Your task to perform on an android device: delete browsing data in the chrome app Image 0: 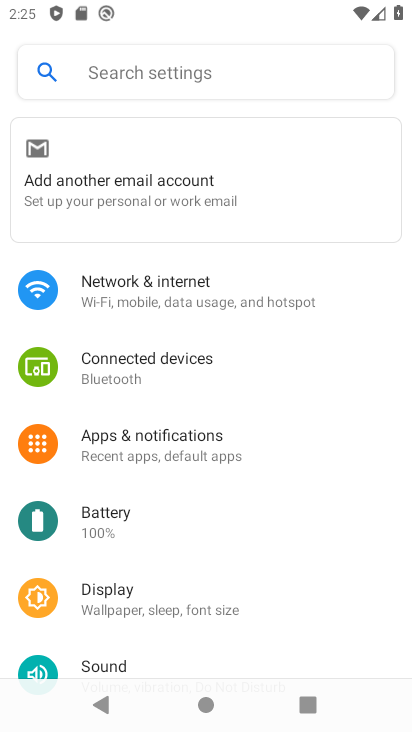
Step 0: drag from (244, 623) to (258, 373)
Your task to perform on an android device: delete browsing data in the chrome app Image 1: 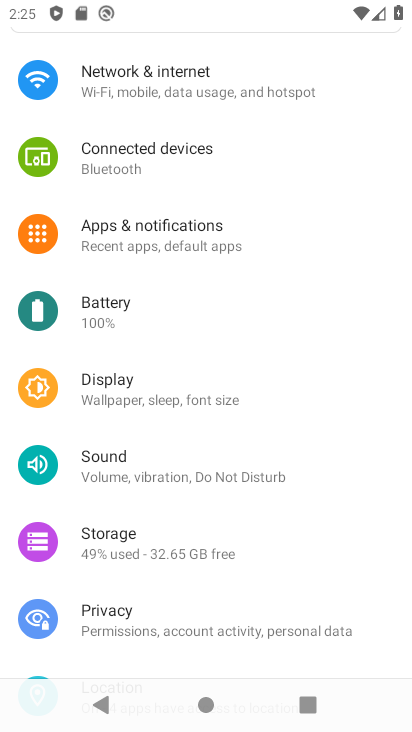
Step 1: drag from (294, 202) to (254, 599)
Your task to perform on an android device: delete browsing data in the chrome app Image 2: 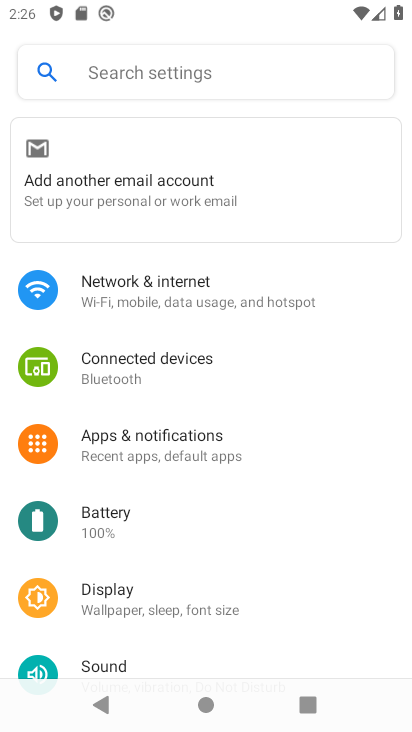
Step 2: press home button
Your task to perform on an android device: delete browsing data in the chrome app Image 3: 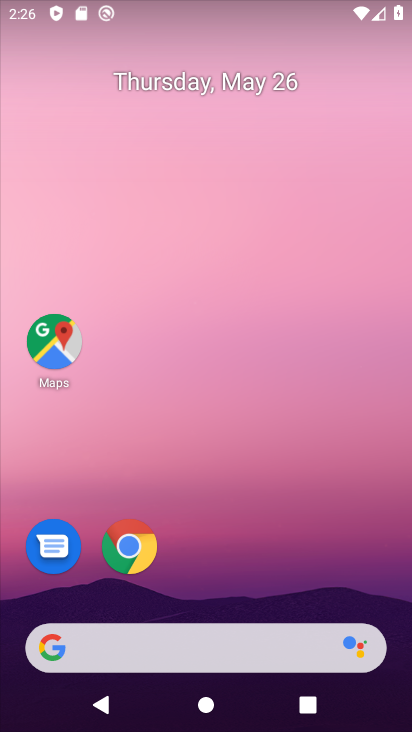
Step 3: click (122, 553)
Your task to perform on an android device: delete browsing data in the chrome app Image 4: 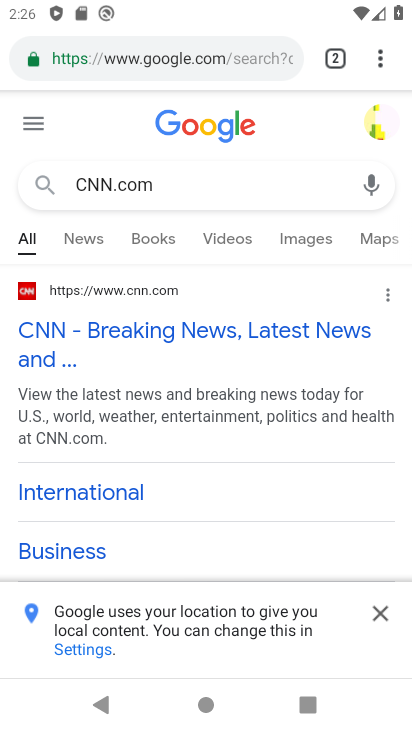
Step 4: click (376, 54)
Your task to perform on an android device: delete browsing data in the chrome app Image 5: 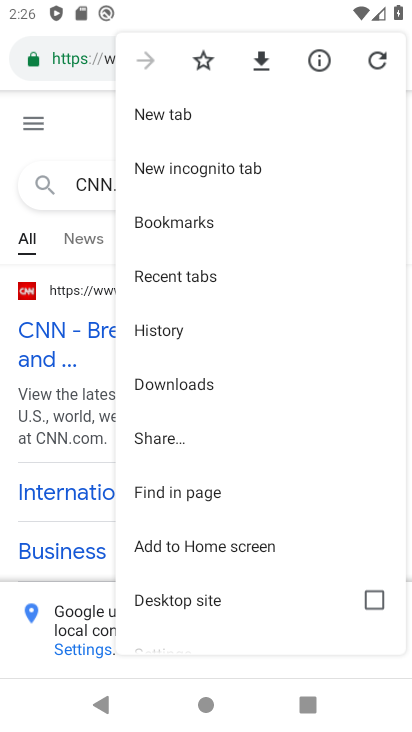
Step 5: drag from (285, 616) to (300, 296)
Your task to perform on an android device: delete browsing data in the chrome app Image 6: 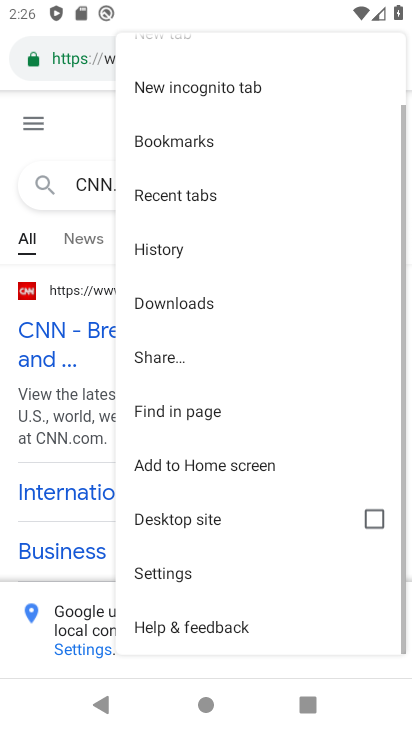
Step 6: drag from (295, 250) to (217, 608)
Your task to perform on an android device: delete browsing data in the chrome app Image 7: 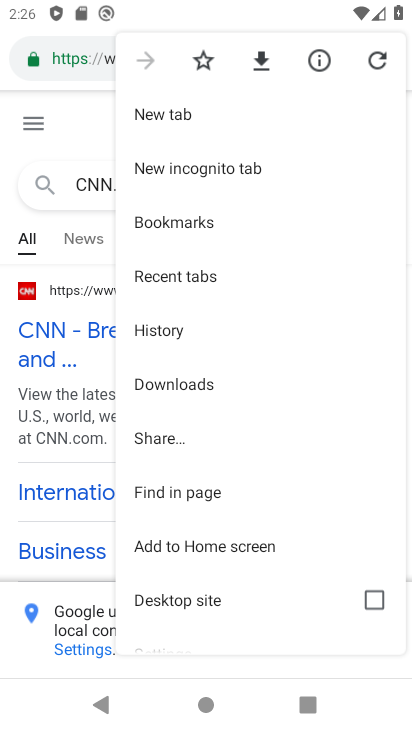
Step 7: click (150, 324)
Your task to perform on an android device: delete browsing data in the chrome app Image 8: 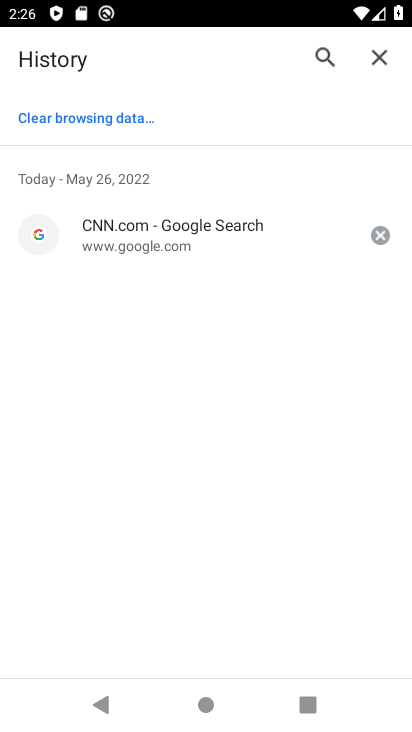
Step 8: click (117, 117)
Your task to perform on an android device: delete browsing data in the chrome app Image 9: 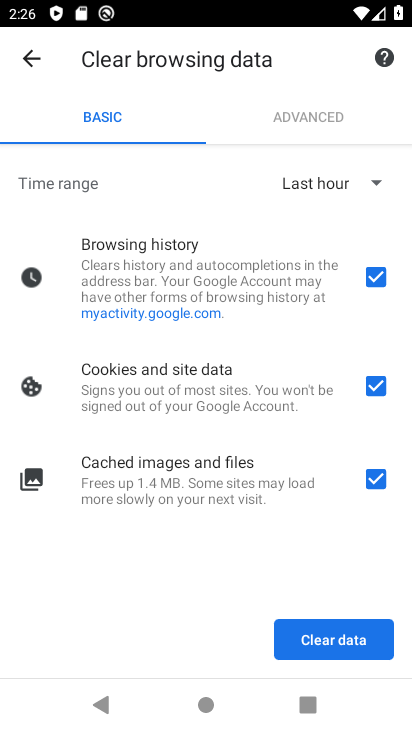
Step 9: click (329, 648)
Your task to perform on an android device: delete browsing data in the chrome app Image 10: 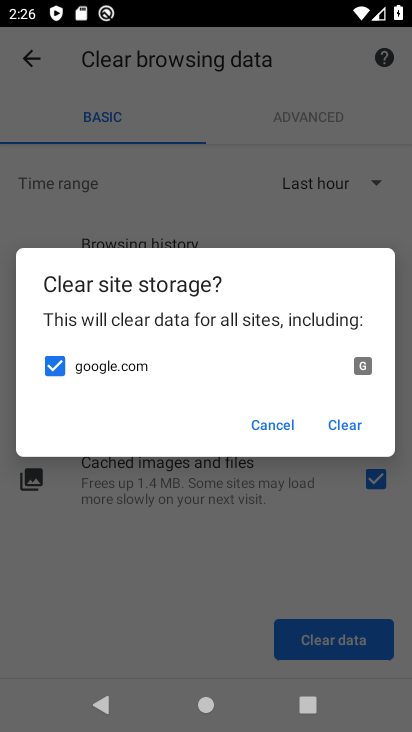
Step 10: click (352, 420)
Your task to perform on an android device: delete browsing data in the chrome app Image 11: 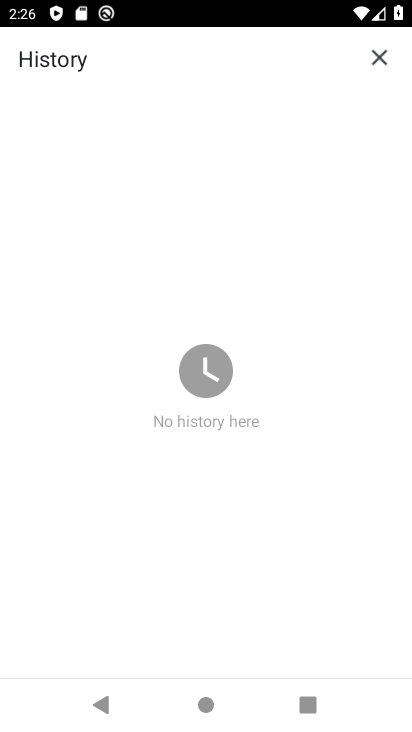
Step 11: task complete